Your task to perform on an android device: Go to wifi settings Image 0: 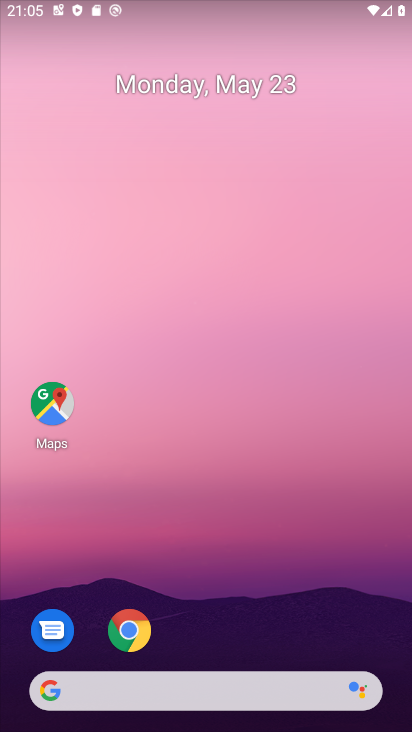
Step 0: drag from (187, 672) to (137, 129)
Your task to perform on an android device: Go to wifi settings Image 1: 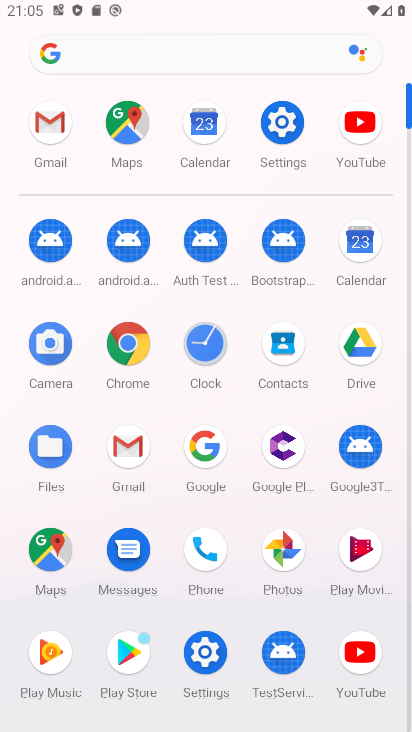
Step 1: click (273, 122)
Your task to perform on an android device: Go to wifi settings Image 2: 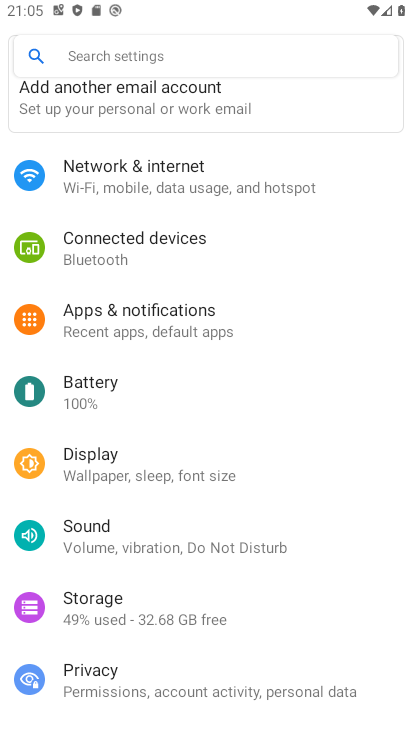
Step 2: click (131, 170)
Your task to perform on an android device: Go to wifi settings Image 3: 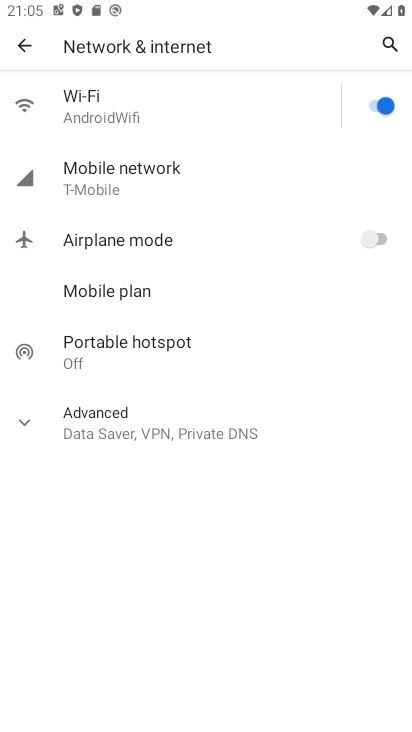
Step 3: click (108, 108)
Your task to perform on an android device: Go to wifi settings Image 4: 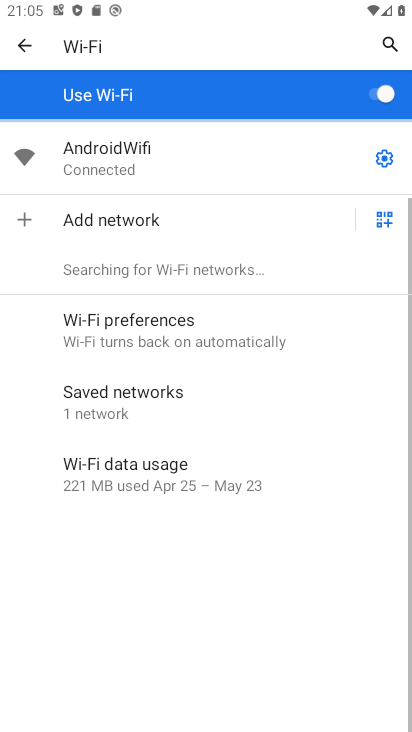
Step 4: click (374, 161)
Your task to perform on an android device: Go to wifi settings Image 5: 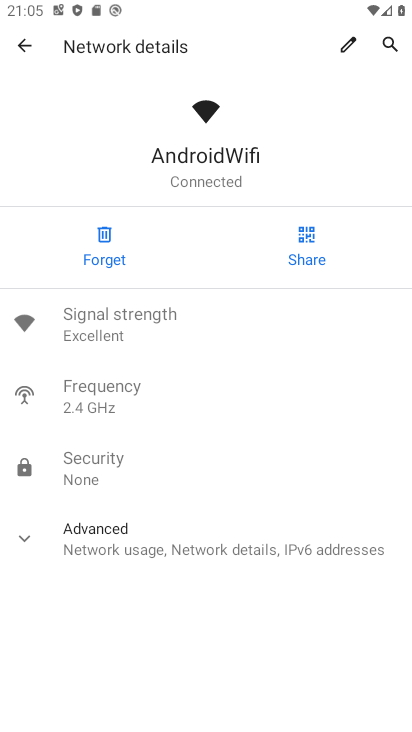
Step 5: click (101, 537)
Your task to perform on an android device: Go to wifi settings Image 6: 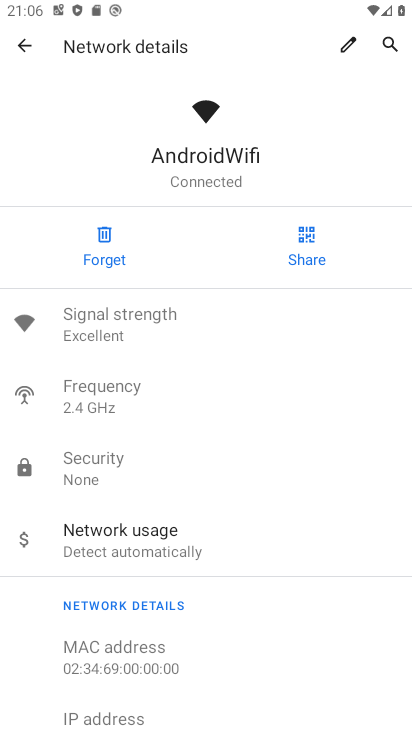
Step 6: task complete